Your task to perform on an android device: turn pop-ups off in chrome Image 0: 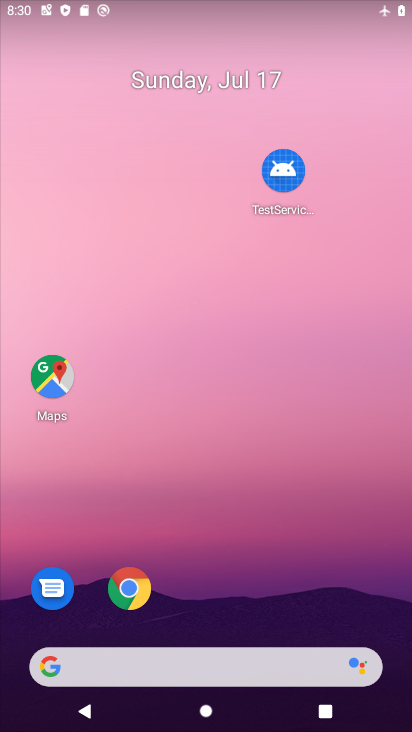
Step 0: drag from (227, 646) to (240, 129)
Your task to perform on an android device: turn pop-ups off in chrome Image 1: 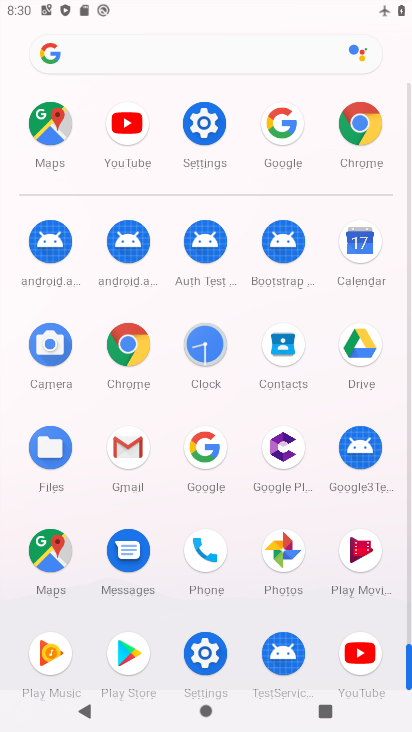
Step 1: click (351, 158)
Your task to perform on an android device: turn pop-ups off in chrome Image 2: 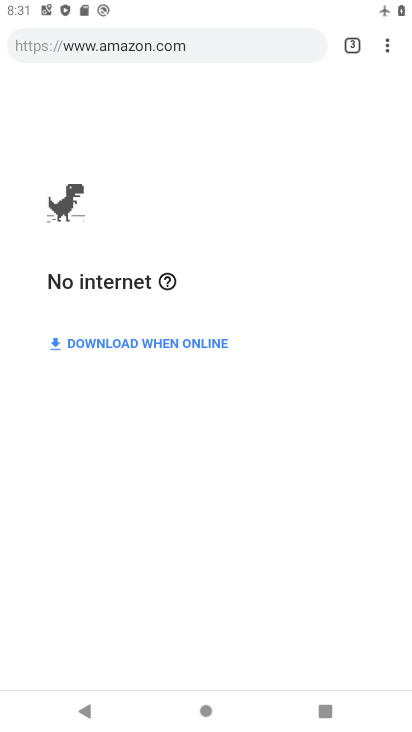
Step 2: click (388, 54)
Your task to perform on an android device: turn pop-ups off in chrome Image 3: 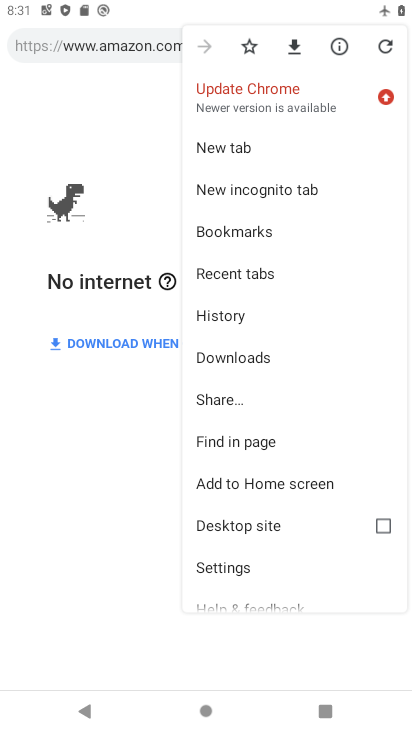
Step 3: click (236, 573)
Your task to perform on an android device: turn pop-ups off in chrome Image 4: 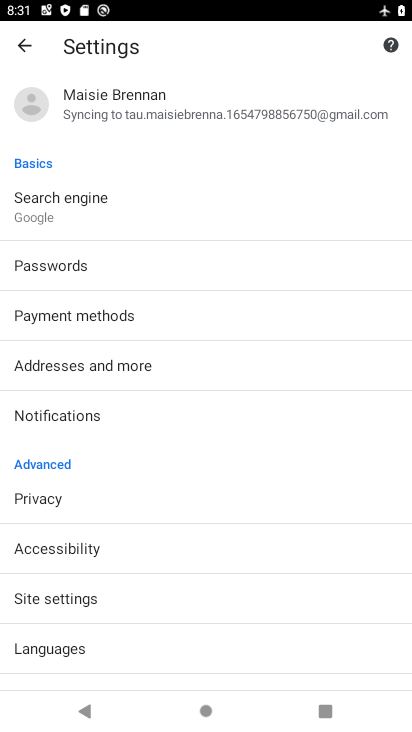
Step 4: drag from (179, 554) to (187, 332)
Your task to perform on an android device: turn pop-ups off in chrome Image 5: 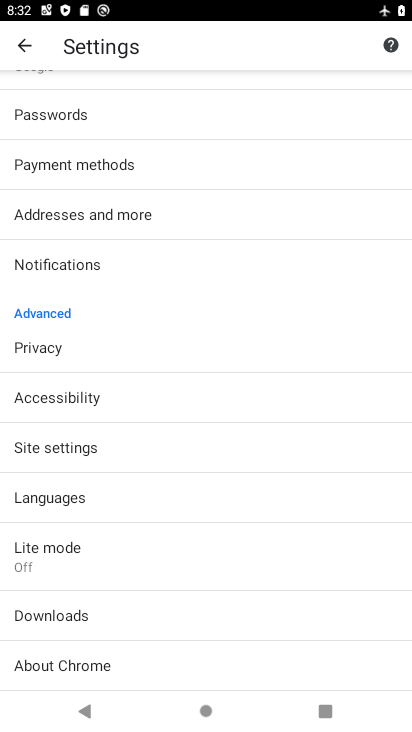
Step 5: click (72, 454)
Your task to perform on an android device: turn pop-ups off in chrome Image 6: 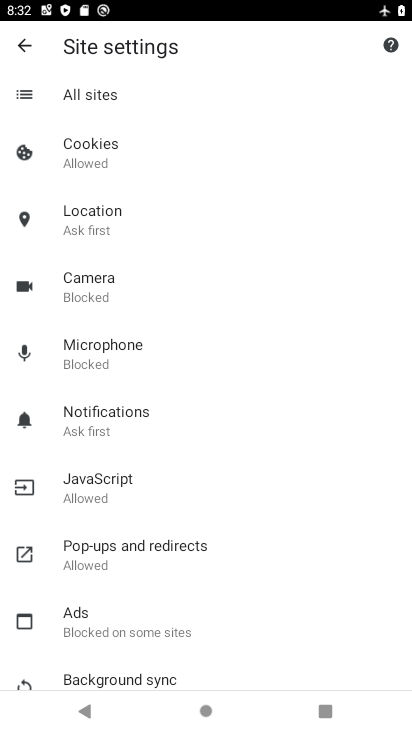
Step 6: drag from (158, 542) to (177, 364)
Your task to perform on an android device: turn pop-ups off in chrome Image 7: 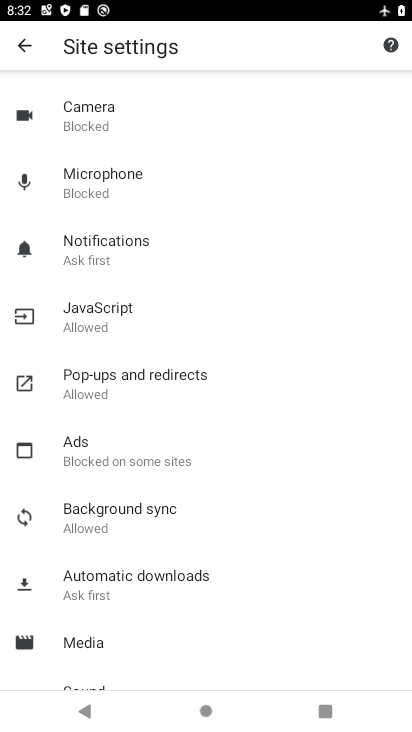
Step 7: click (163, 392)
Your task to perform on an android device: turn pop-ups off in chrome Image 8: 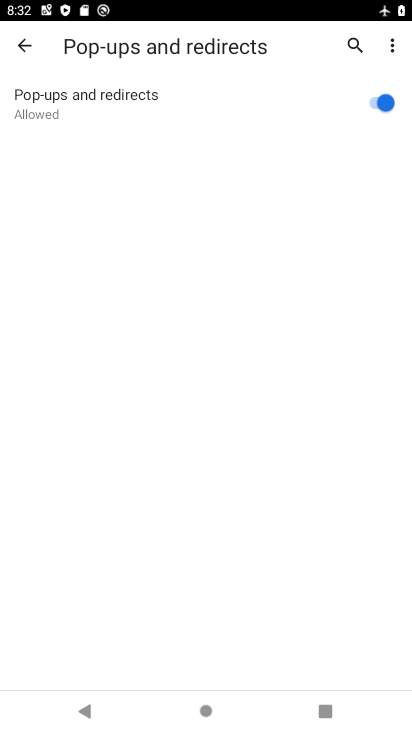
Step 8: click (359, 106)
Your task to perform on an android device: turn pop-ups off in chrome Image 9: 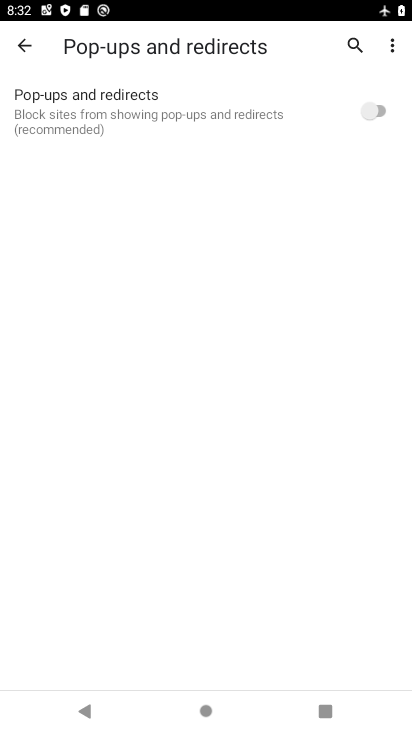
Step 9: task complete